Your task to perform on an android device: toggle show notifications on the lock screen Image 0: 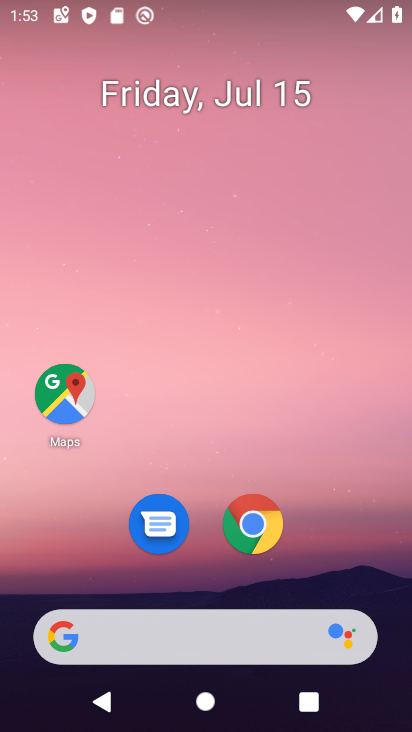
Step 0: drag from (166, 634) to (320, 133)
Your task to perform on an android device: toggle show notifications on the lock screen Image 1: 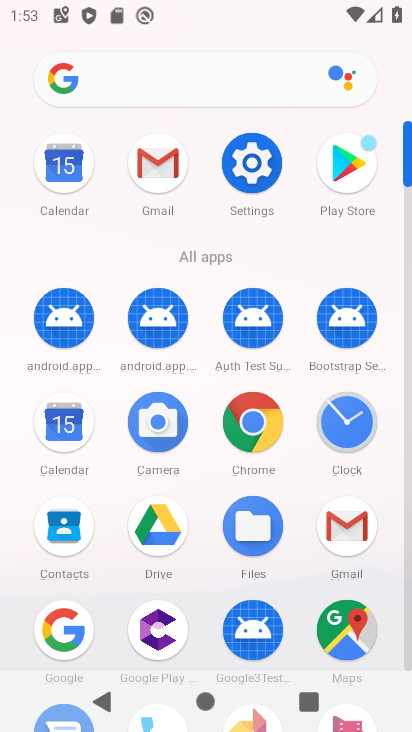
Step 1: click (249, 162)
Your task to perform on an android device: toggle show notifications on the lock screen Image 2: 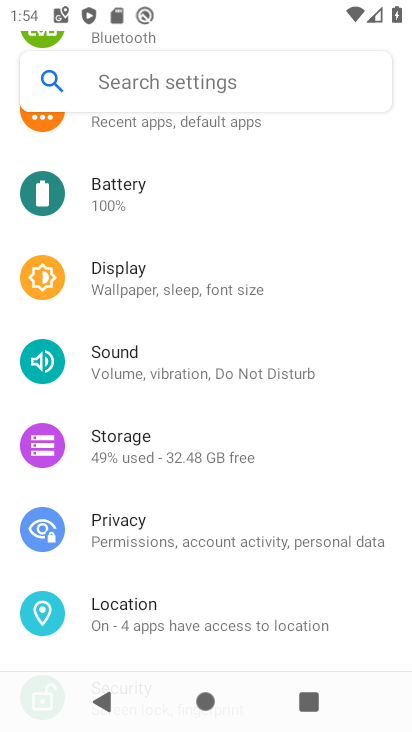
Step 2: drag from (245, 219) to (200, 538)
Your task to perform on an android device: toggle show notifications on the lock screen Image 3: 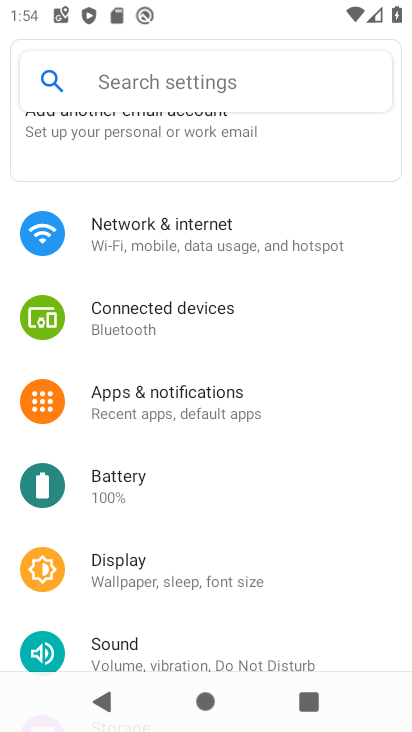
Step 3: click (192, 399)
Your task to perform on an android device: toggle show notifications on the lock screen Image 4: 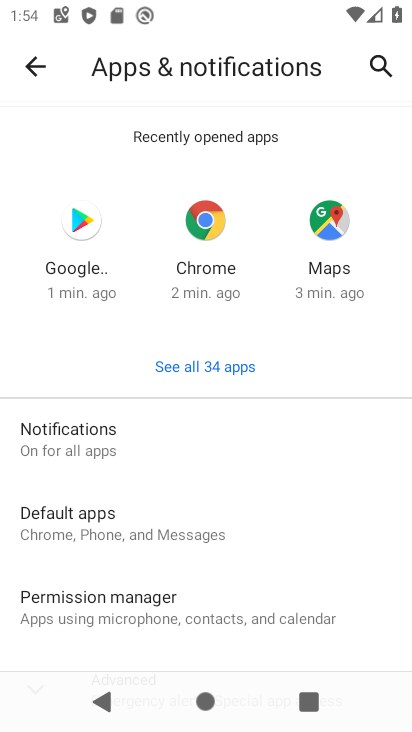
Step 4: click (94, 429)
Your task to perform on an android device: toggle show notifications on the lock screen Image 5: 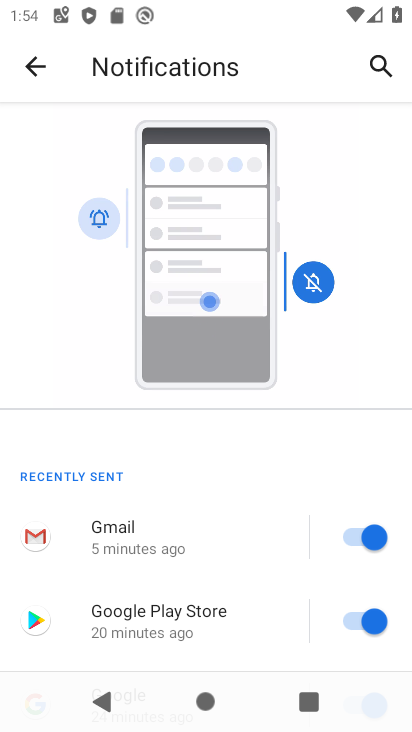
Step 5: drag from (217, 558) to (355, 164)
Your task to perform on an android device: toggle show notifications on the lock screen Image 6: 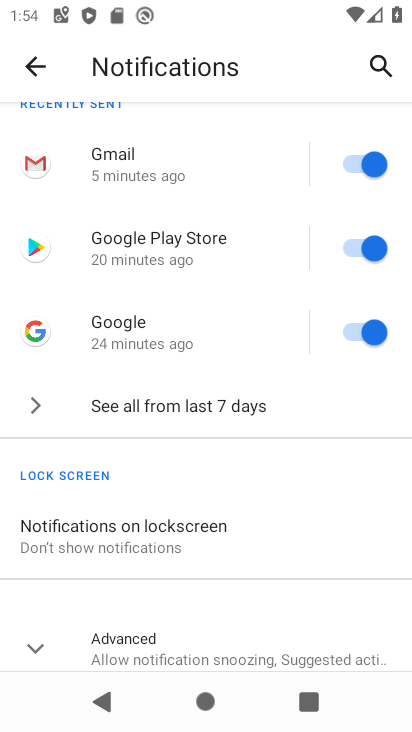
Step 6: click (169, 532)
Your task to perform on an android device: toggle show notifications on the lock screen Image 7: 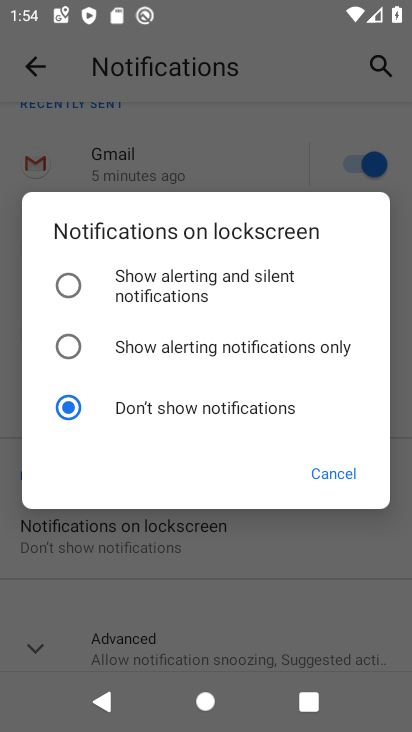
Step 7: click (71, 281)
Your task to perform on an android device: toggle show notifications on the lock screen Image 8: 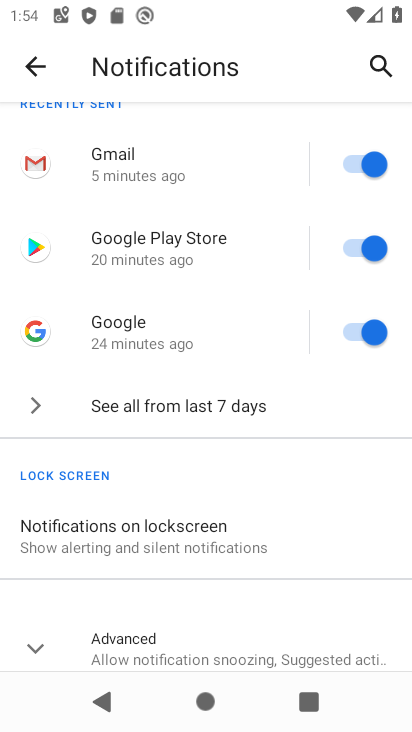
Step 8: task complete